Your task to perform on an android device: refresh tabs in the chrome app Image 0: 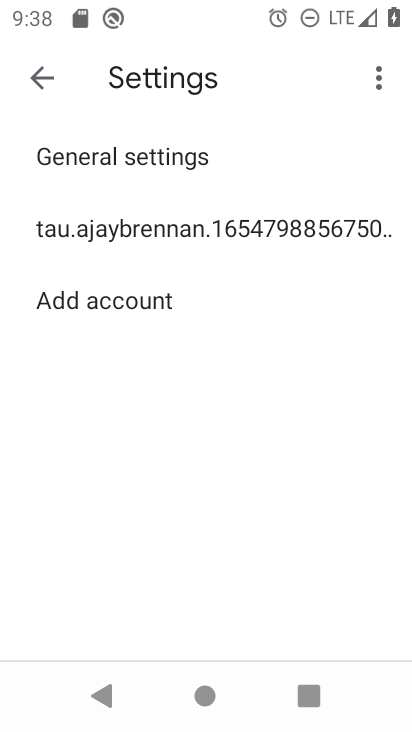
Step 0: press home button
Your task to perform on an android device: refresh tabs in the chrome app Image 1: 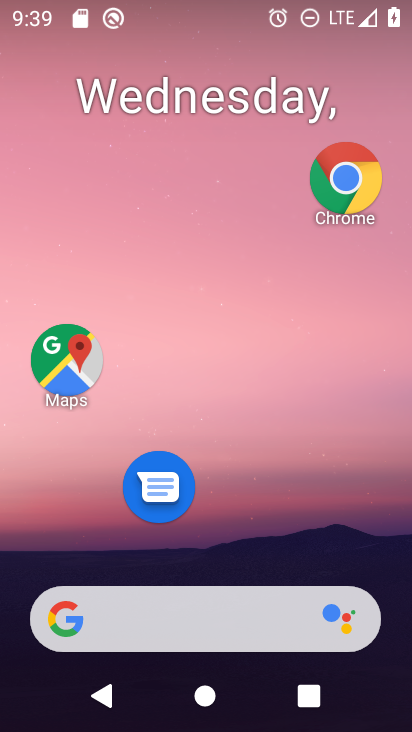
Step 1: drag from (232, 586) to (255, 34)
Your task to perform on an android device: refresh tabs in the chrome app Image 2: 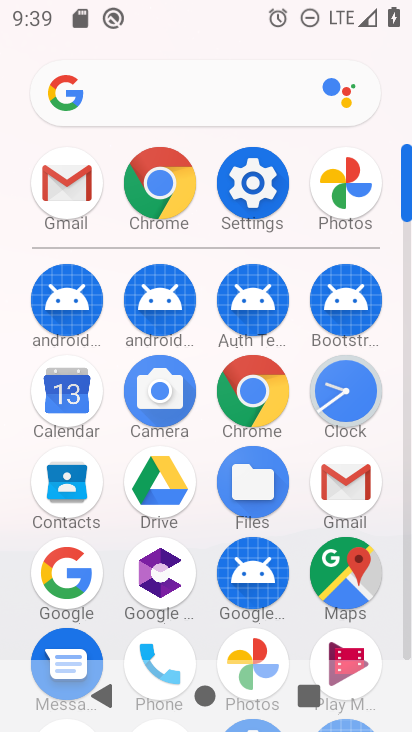
Step 2: click (171, 221)
Your task to perform on an android device: refresh tabs in the chrome app Image 3: 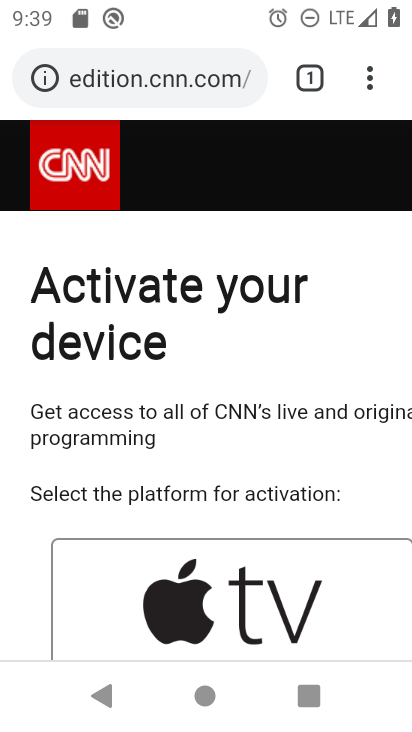
Step 3: click (355, 86)
Your task to perform on an android device: refresh tabs in the chrome app Image 4: 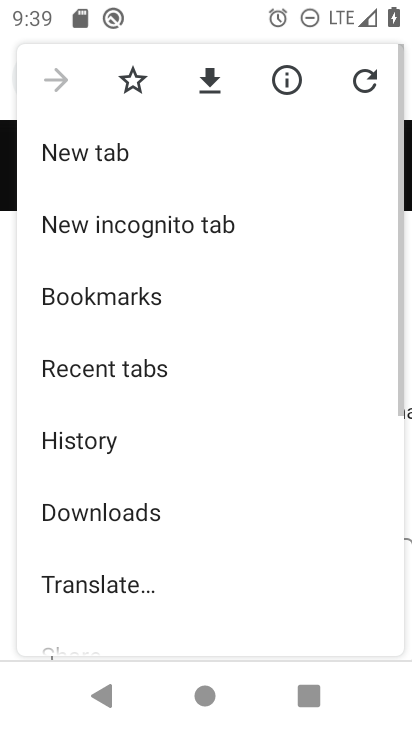
Step 4: click (369, 92)
Your task to perform on an android device: refresh tabs in the chrome app Image 5: 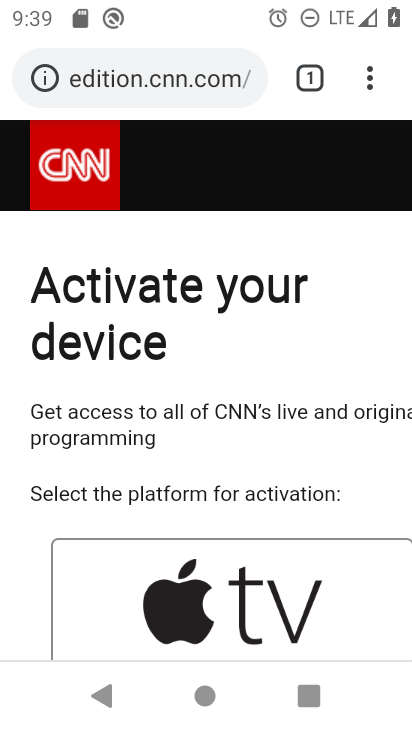
Step 5: task complete